Your task to perform on an android device: Go to sound settings Image 0: 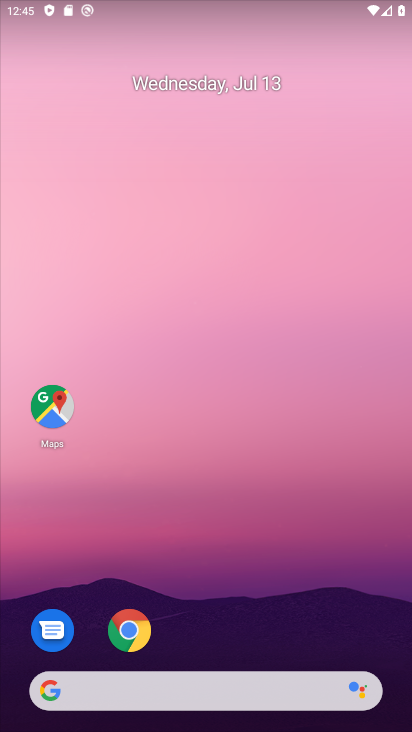
Step 0: drag from (9, 694) to (366, 5)
Your task to perform on an android device: Go to sound settings Image 1: 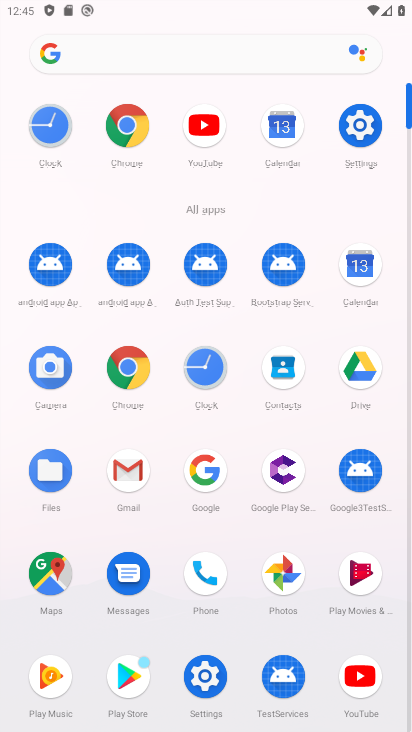
Step 1: click (205, 671)
Your task to perform on an android device: Go to sound settings Image 2: 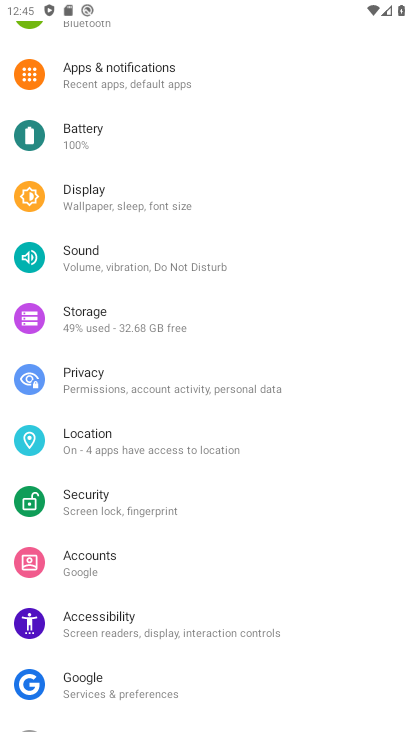
Step 2: click (87, 280)
Your task to perform on an android device: Go to sound settings Image 3: 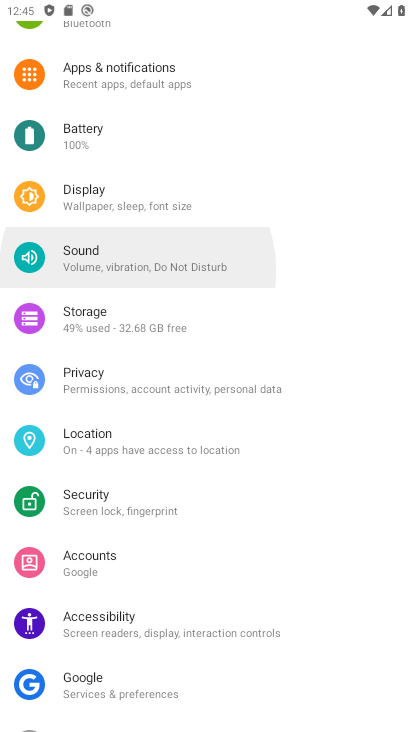
Step 3: click (87, 226)
Your task to perform on an android device: Go to sound settings Image 4: 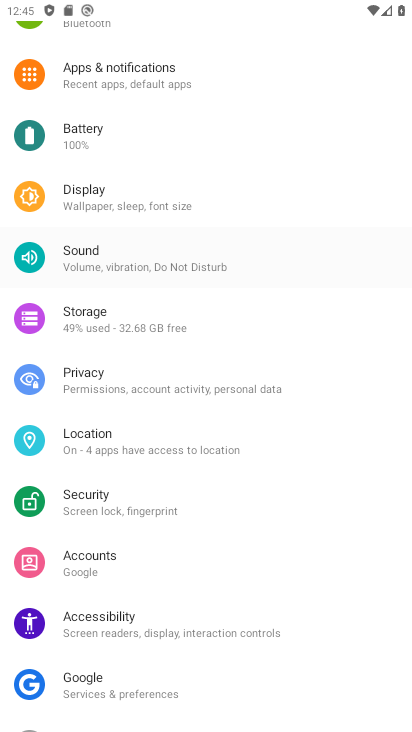
Step 4: click (86, 270)
Your task to perform on an android device: Go to sound settings Image 5: 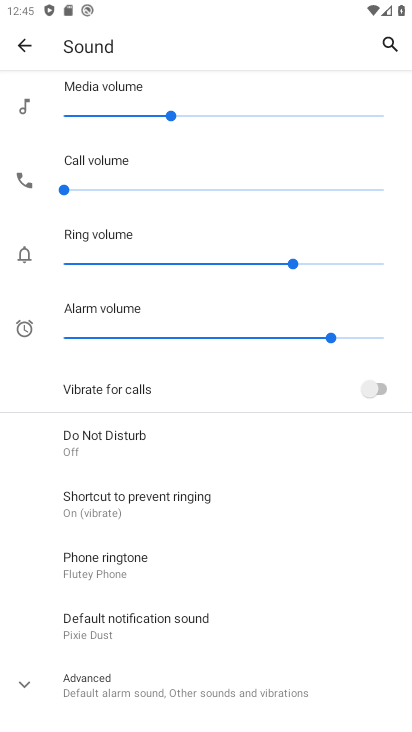
Step 5: task complete